Your task to perform on an android device: clear history in the chrome app Image 0: 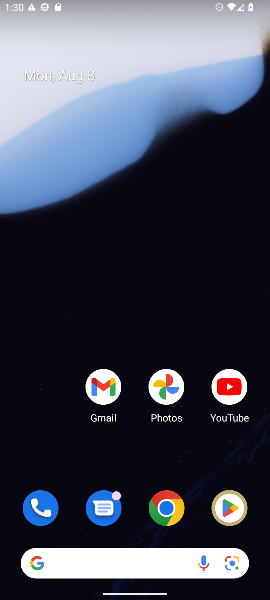
Step 0: click (167, 510)
Your task to perform on an android device: clear history in the chrome app Image 1: 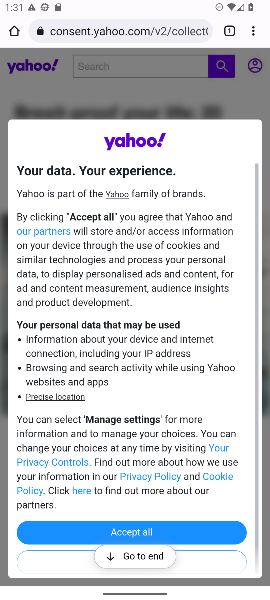
Step 1: click (253, 29)
Your task to perform on an android device: clear history in the chrome app Image 2: 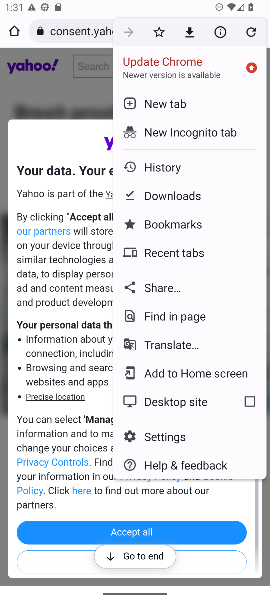
Step 2: click (148, 166)
Your task to perform on an android device: clear history in the chrome app Image 3: 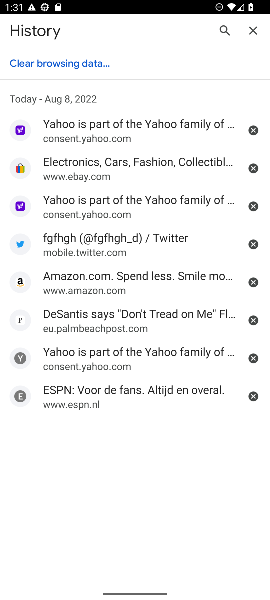
Step 3: click (85, 57)
Your task to perform on an android device: clear history in the chrome app Image 4: 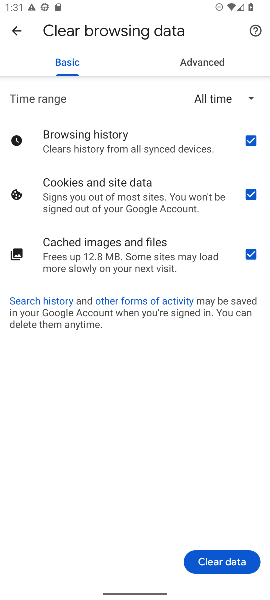
Step 4: click (213, 556)
Your task to perform on an android device: clear history in the chrome app Image 5: 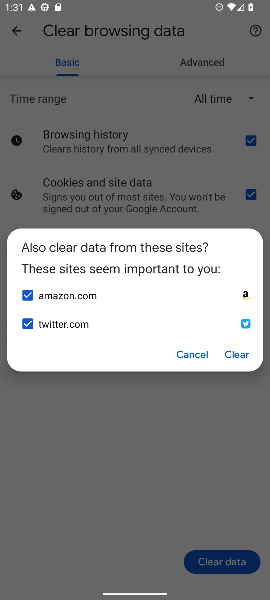
Step 5: click (238, 354)
Your task to perform on an android device: clear history in the chrome app Image 6: 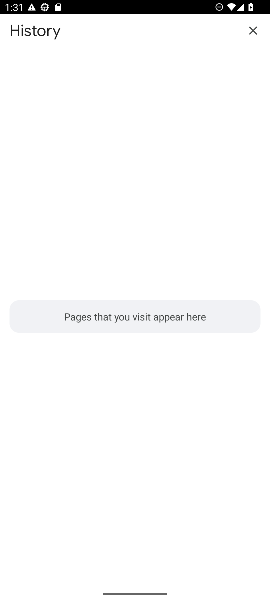
Step 6: task complete